Your task to perform on an android device: Search for vegetarian restaurants on Maps Image 0: 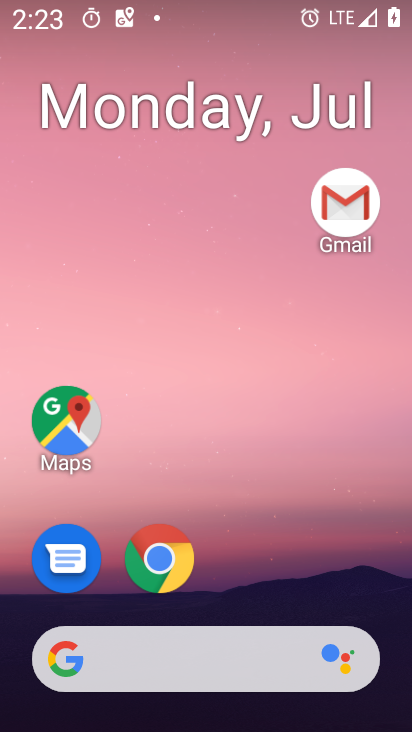
Step 0: drag from (339, 578) to (341, 198)
Your task to perform on an android device: Search for vegetarian restaurants on Maps Image 1: 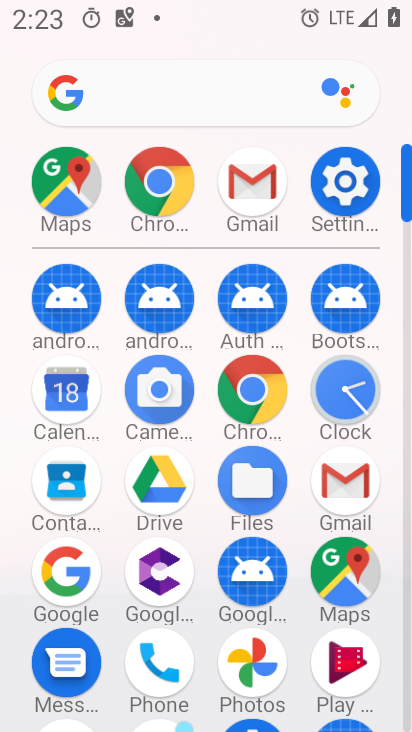
Step 1: click (350, 563)
Your task to perform on an android device: Search for vegetarian restaurants on Maps Image 2: 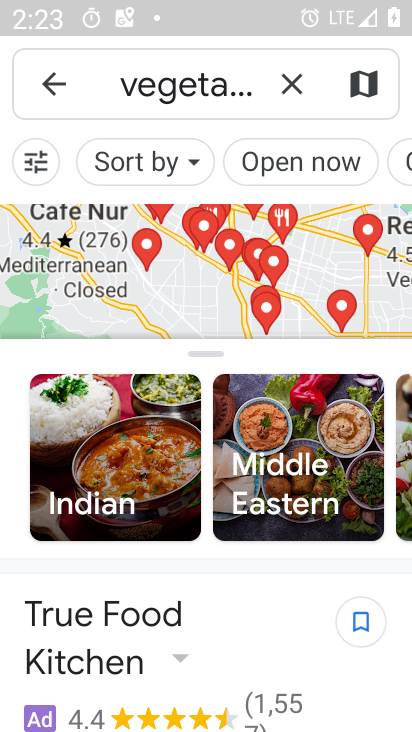
Step 2: task complete